Your task to perform on an android device: toggle wifi Image 0: 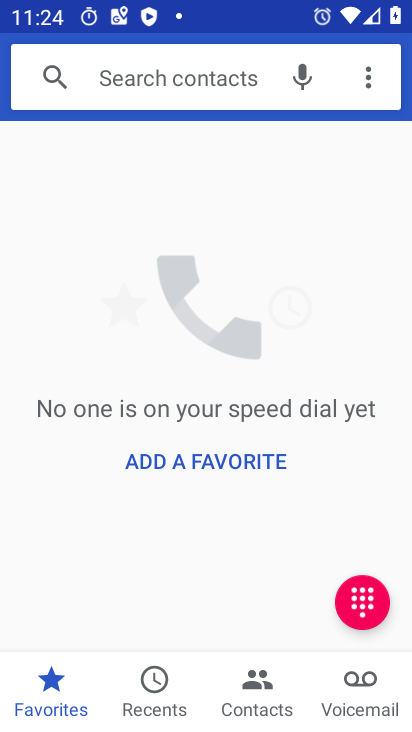
Step 0: press home button
Your task to perform on an android device: toggle wifi Image 1: 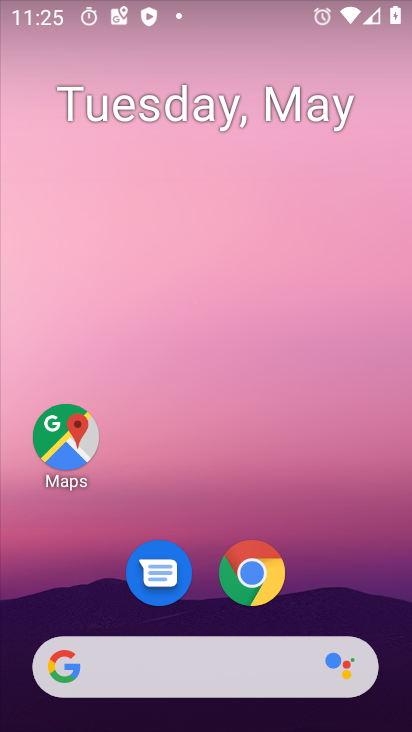
Step 1: drag from (281, 693) to (289, 347)
Your task to perform on an android device: toggle wifi Image 2: 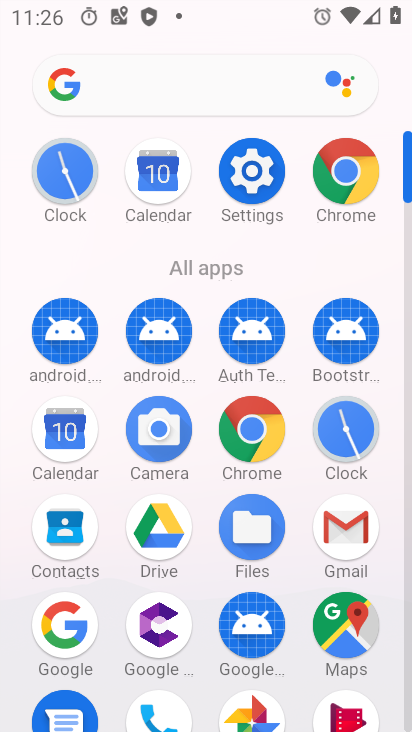
Step 2: click (237, 187)
Your task to perform on an android device: toggle wifi Image 3: 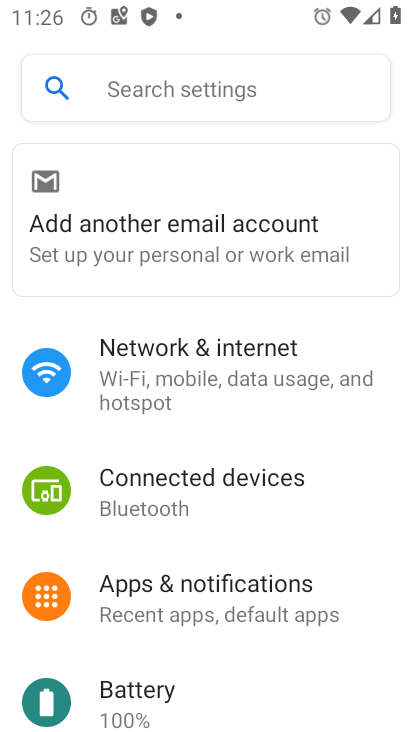
Step 3: click (164, 344)
Your task to perform on an android device: toggle wifi Image 4: 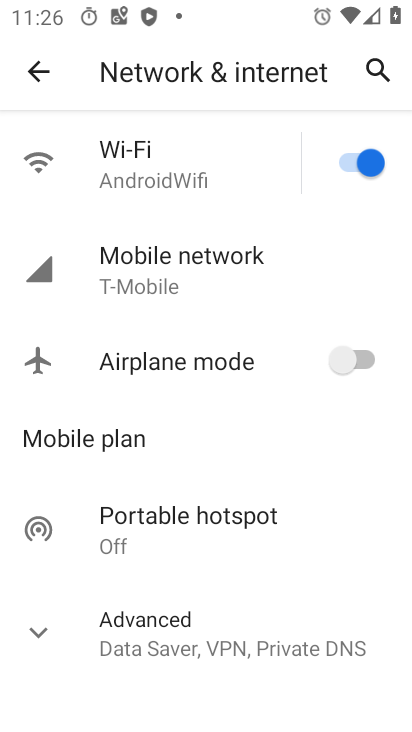
Step 4: click (146, 172)
Your task to perform on an android device: toggle wifi Image 5: 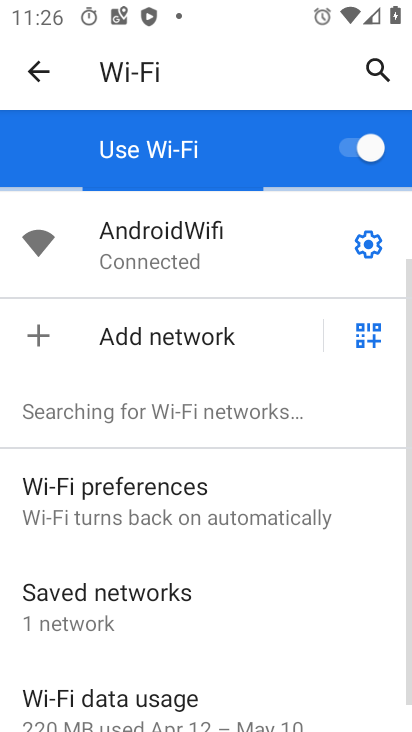
Step 5: task complete